Your task to perform on an android device: read, delete, or share a saved page in the chrome app Image 0: 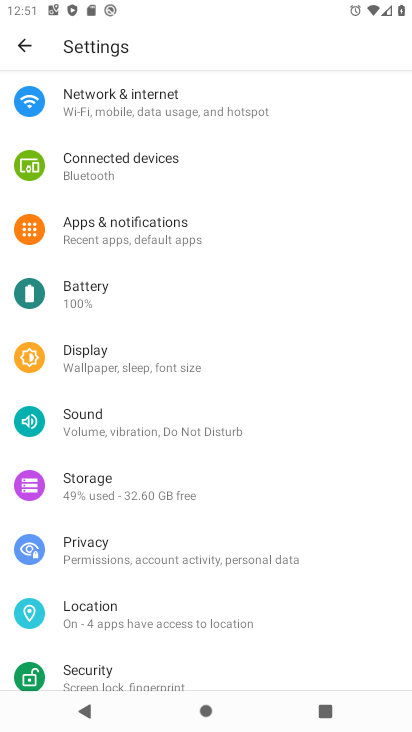
Step 0: press home button
Your task to perform on an android device: read, delete, or share a saved page in the chrome app Image 1: 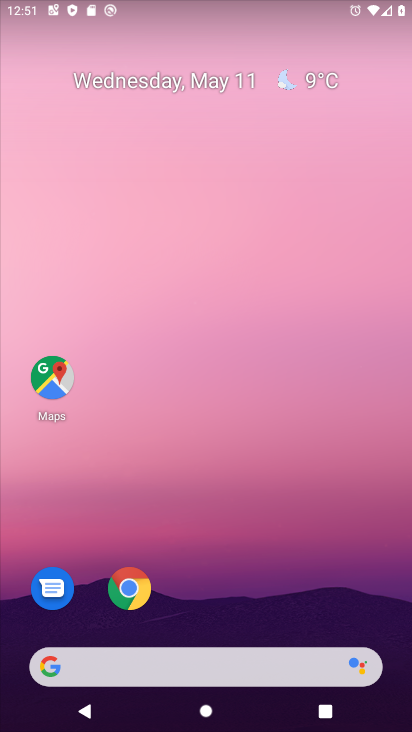
Step 1: click (130, 592)
Your task to perform on an android device: read, delete, or share a saved page in the chrome app Image 2: 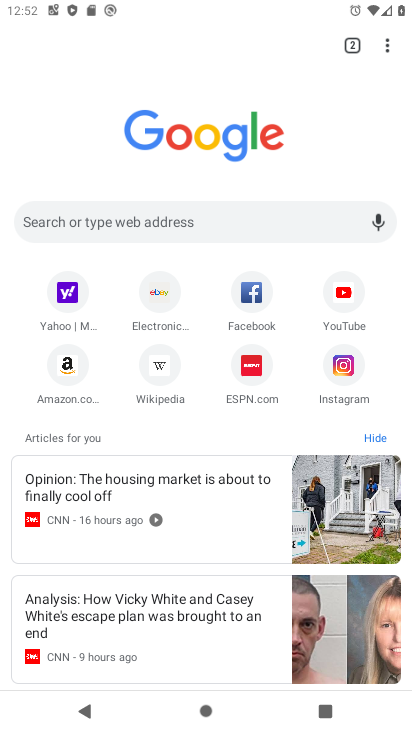
Step 2: drag from (389, 50) to (215, 297)
Your task to perform on an android device: read, delete, or share a saved page in the chrome app Image 3: 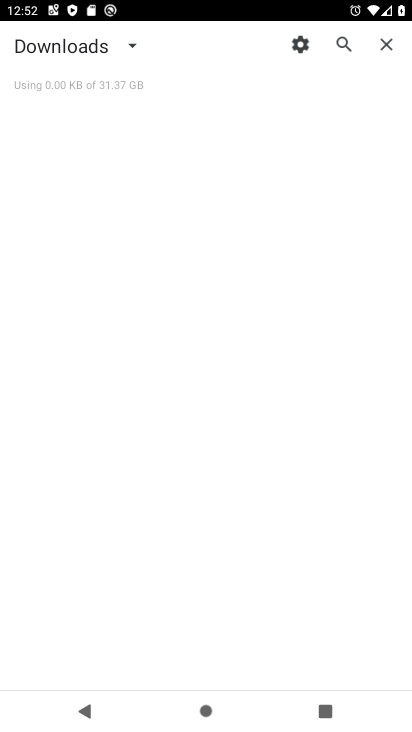
Step 3: click (131, 51)
Your task to perform on an android device: read, delete, or share a saved page in the chrome app Image 4: 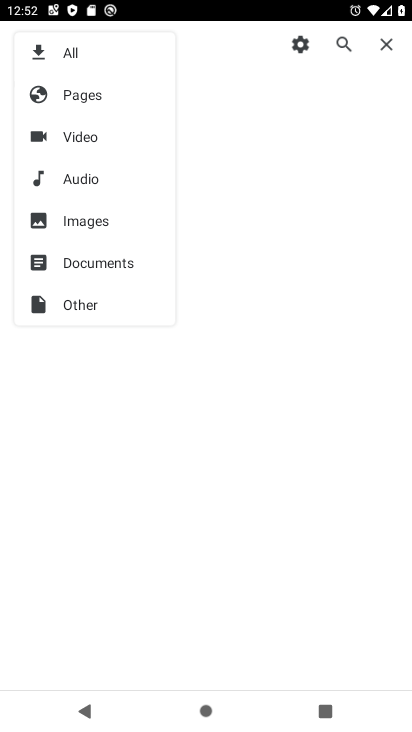
Step 4: click (79, 95)
Your task to perform on an android device: read, delete, or share a saved page in the chrome app Image 5: 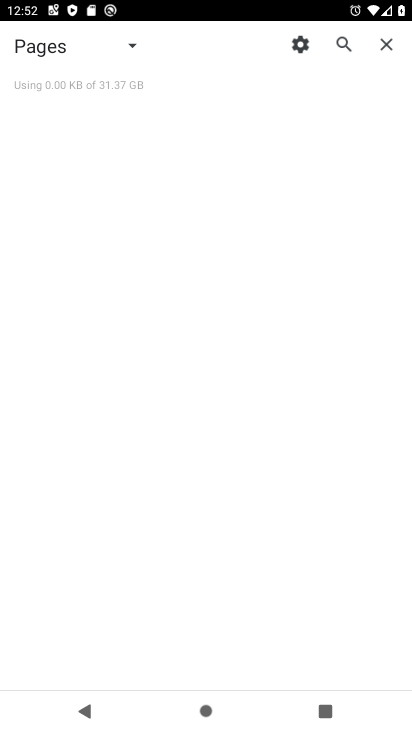
Step 5: task complete